Your task to perform on an android device: Turn off the flashlight Image 0: 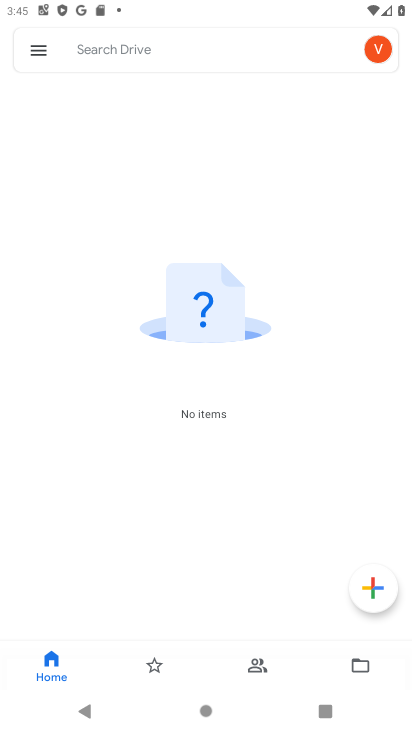
Step 0: press home button
Your task to perform on an android device: Turn off the flashlight Image 1: 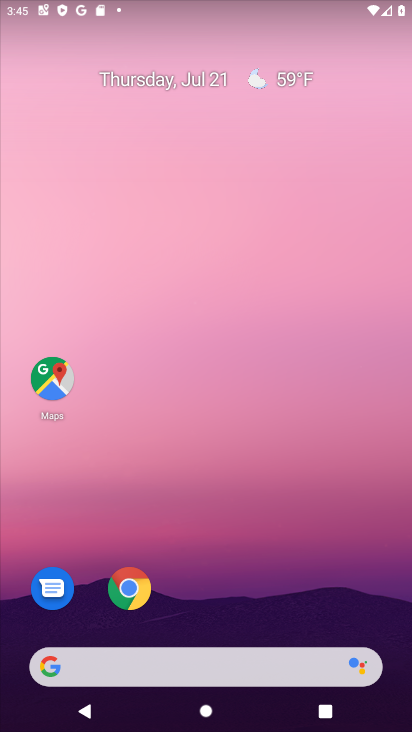
Step 1: drag from (239, 726) to (238, 161)
Your task to perform on an android device: Turn off the flashlight Image 2: 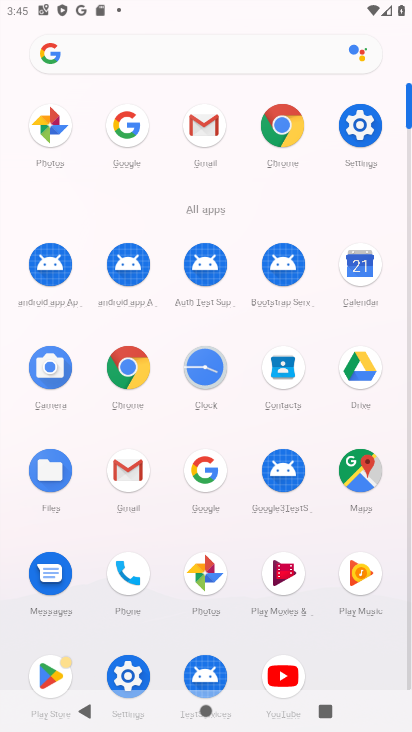
Step 2: click (362, 123)
Your task to perform on an android device: Turn off the flashlight Image 3: 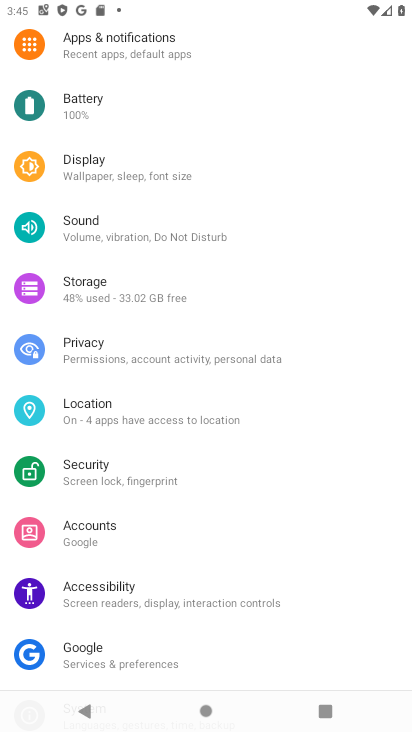
Step 3: task complete